Your task to perform on an android device: Open Reddit Image 0: 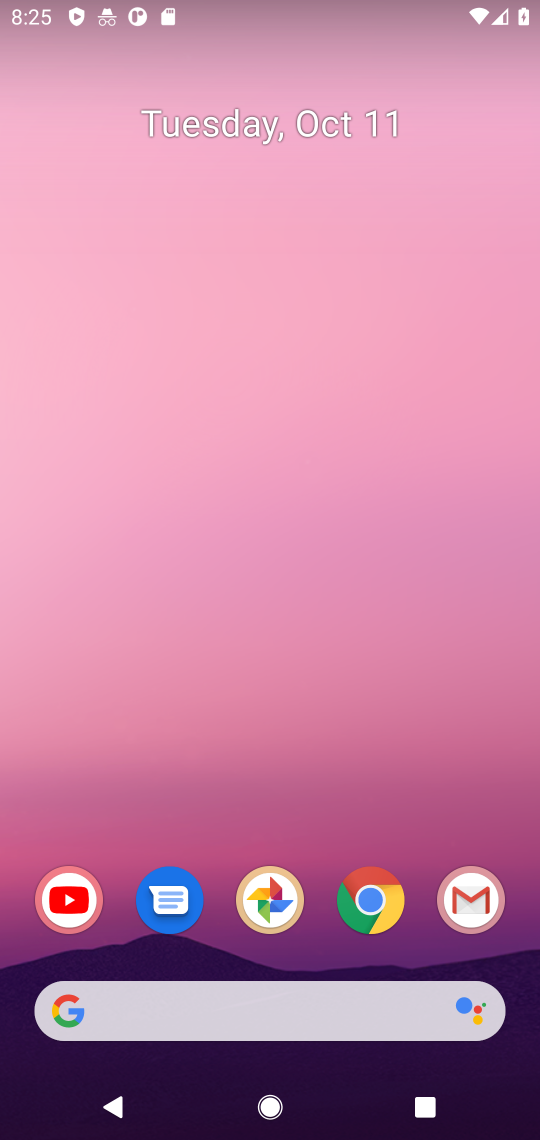
Step 0: click (375, 902)
Your task to perform on an android device: Open Reddit Image 1: 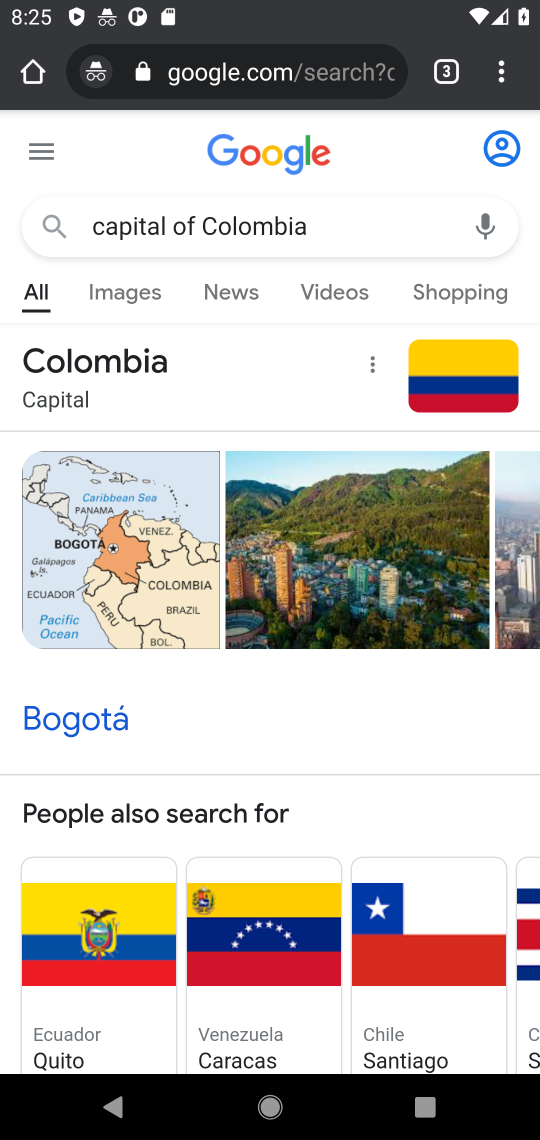
Step 1: click (287, 70)
Your task to perform on an android device: Open Reddit Image 2: 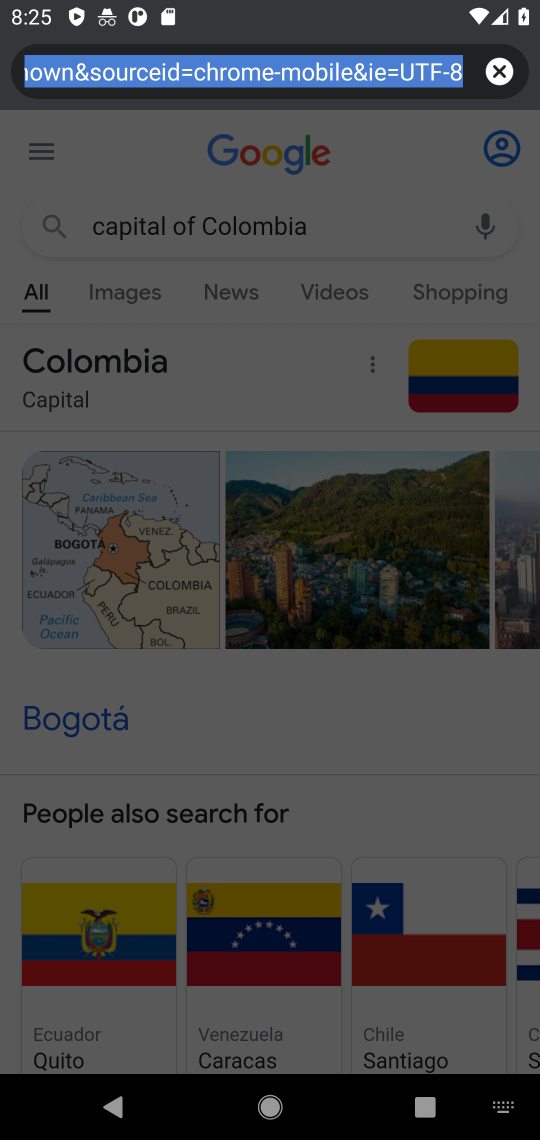
Step 2: type "reddit"
Your task to perform on an android device: Open Reddit Image 3: 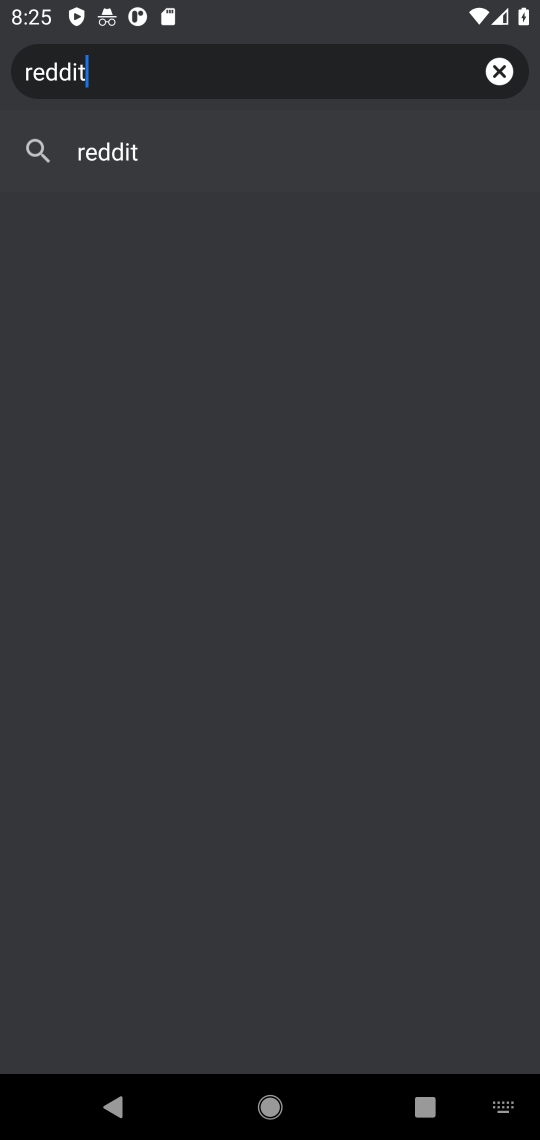
Step 3: click (322, 140)
Your task to perform on an android device: Open Reddit Image 4: 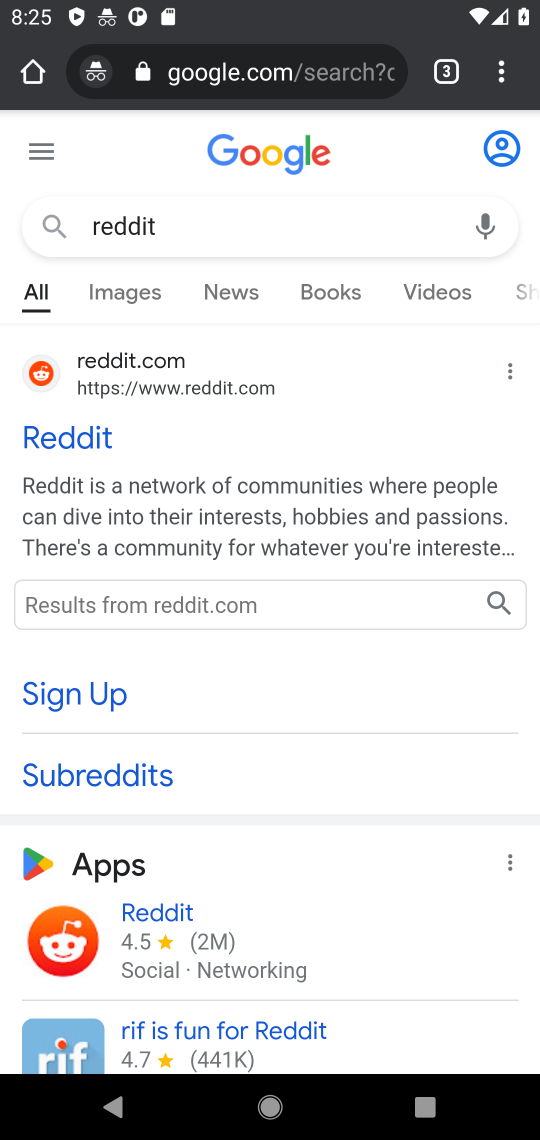
Step 4: click (39, 443)
Your task to perform on an android device: Open Reddit Image 5: 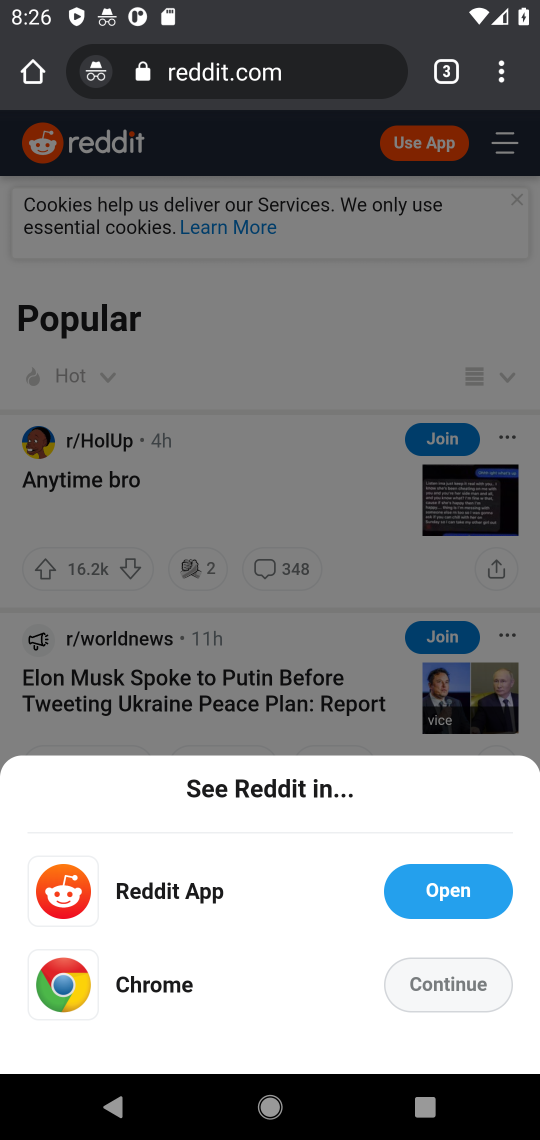
Step 5: click (432, 974)
Your task to perform on an android device: Open Reddit Image 6: 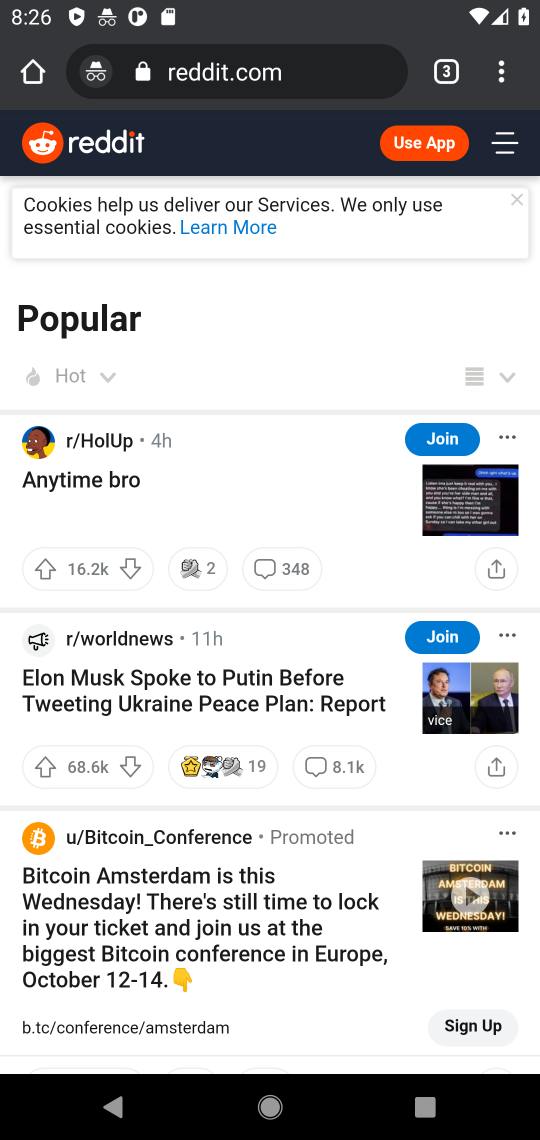
Step 6: task complete